Your task to perform on an android device: Open Google Maps and go to "Timeline" Image 0: 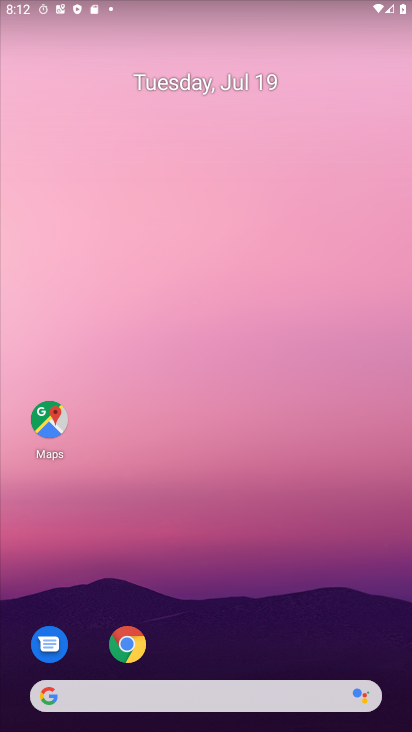
Step 0: click (48, 415)
Your task to perform on an android device: Open Google Maps and go to "Timeline" Image 1: 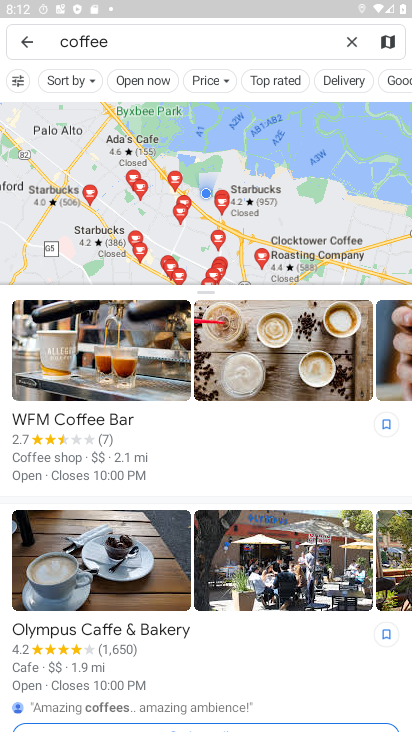
Step 1: click (26, 47)
Your task to perform on an android device: Open Google Maps and go to "Timeline" Image 2: 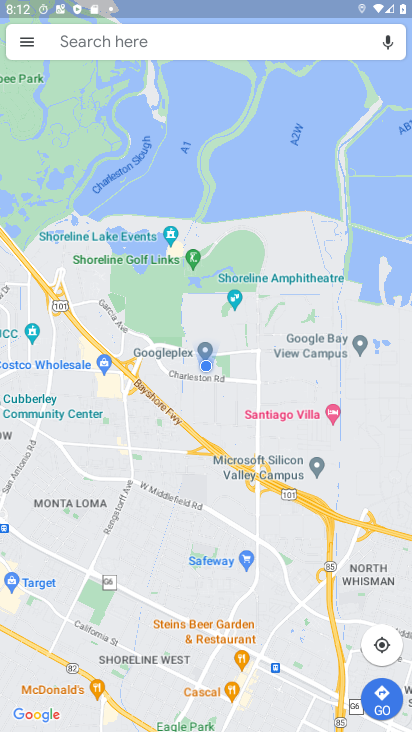
Step 2: click (17, 39)
Your task to perform on an android device: Open Google Maps and go to "Timeline" Image 3: 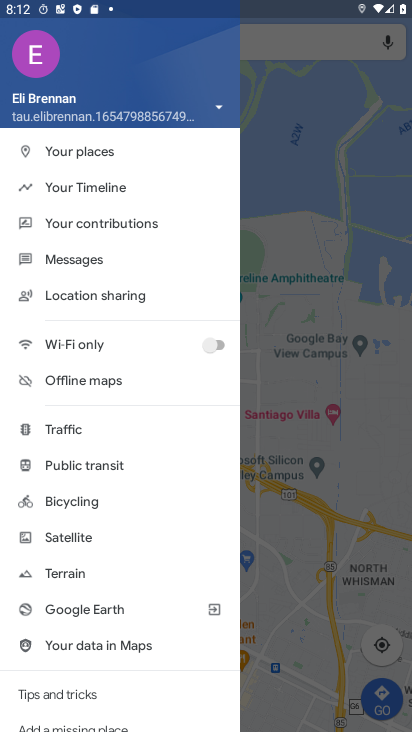
Step 3: click (72, 184)
Your task to perform on an android device: Open Google Maps and go to "Timeline" Image 4: 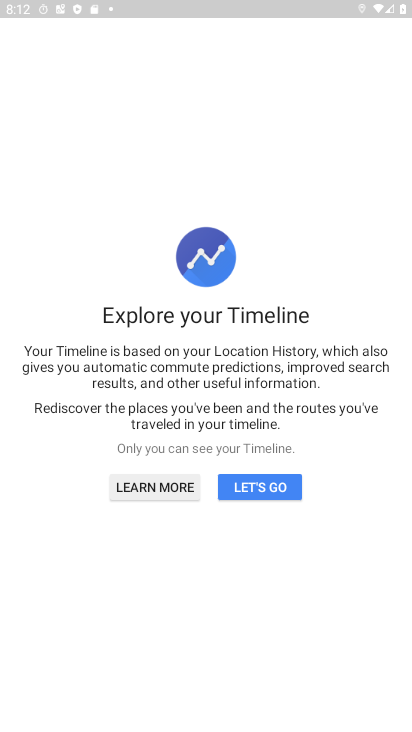
Step 4: click (256, 482)
Your task to perform on an android device: Open Google Maps and go to "Timeline" Image 5: 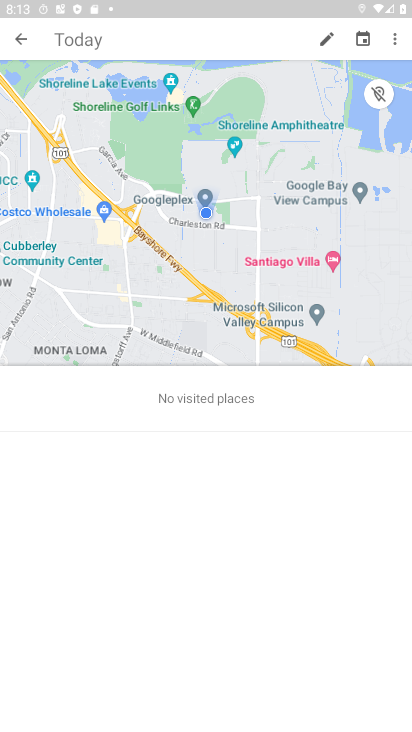
Step 5: task complete